Your task to perform on an android device: change notifications settings Image 0: 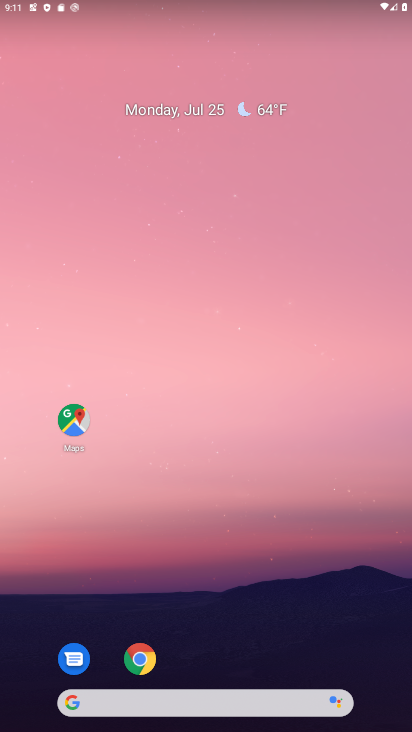
Step 0: drag from (367, 603) to (382, 171)
Your task to perform on an android device: change notifications settings Image 1: 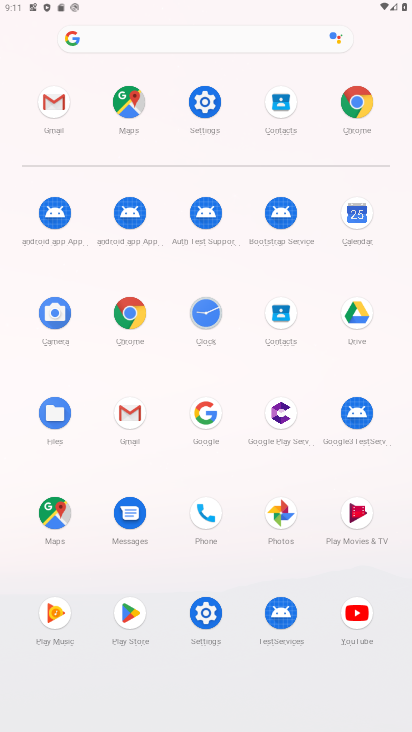
Step 1: click (206, 104)
Your task to perform on an android device: change notifications settings Image 2: 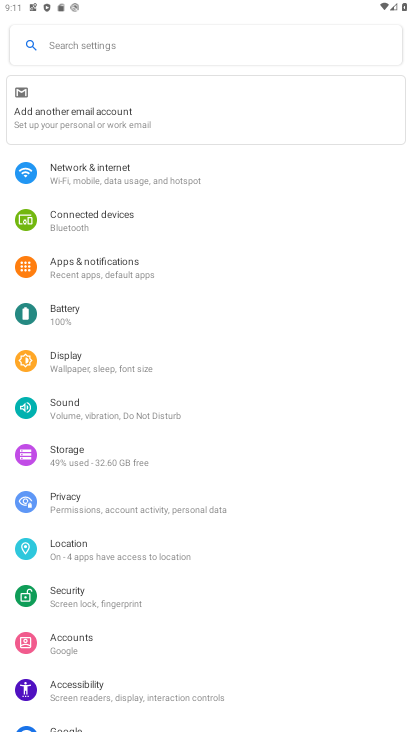
Step 2: drag from (299, 430) to (311, 331)
Your task to perform on an android device: change notifications settings Image 3: 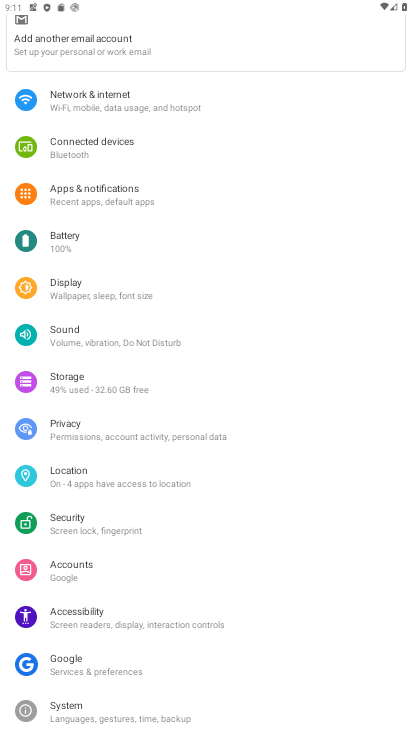
Step 3: drag from (301, 530) to (317, 446)
Your task to perform on an android device: change notifications settings Image 4: 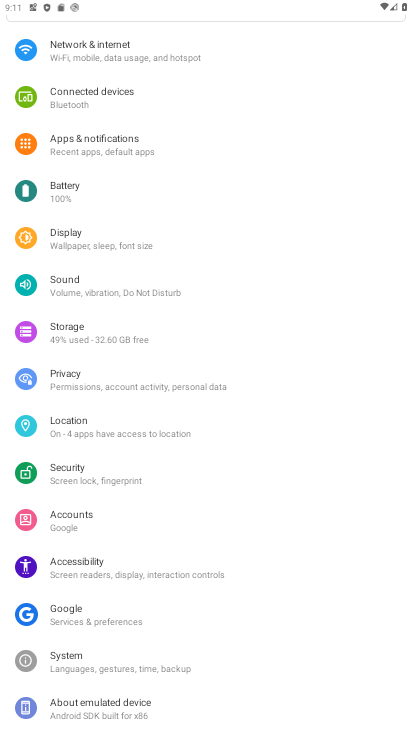
Step 4: drag from (329, 380) to (333, 483)
Your task to perform on an android device: change notifications settings Image 5: 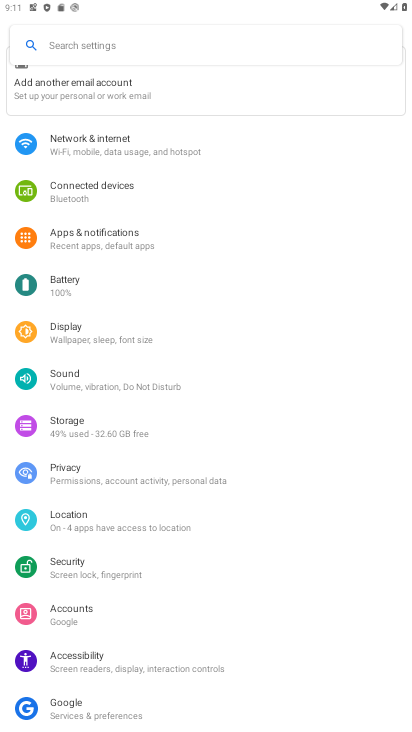
Step 5: drag from (319, 296) to (319, 405)
Your task to perform on an android device: change notifications settings Image 6: 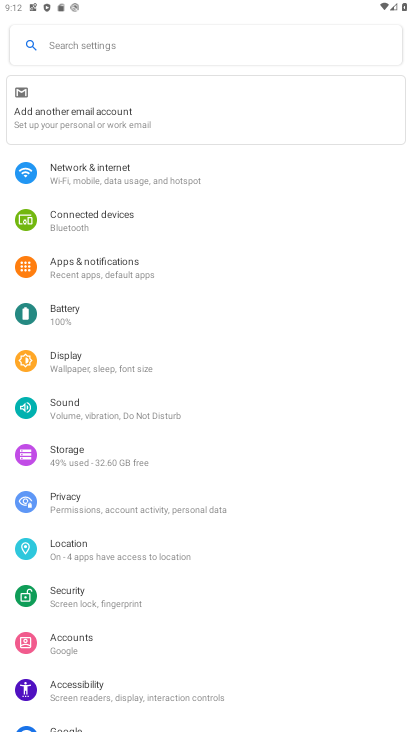
Step 6: drag from (310, 245) to (313, 349)
Your task to perform on an android device: change notifications settings Image 7: 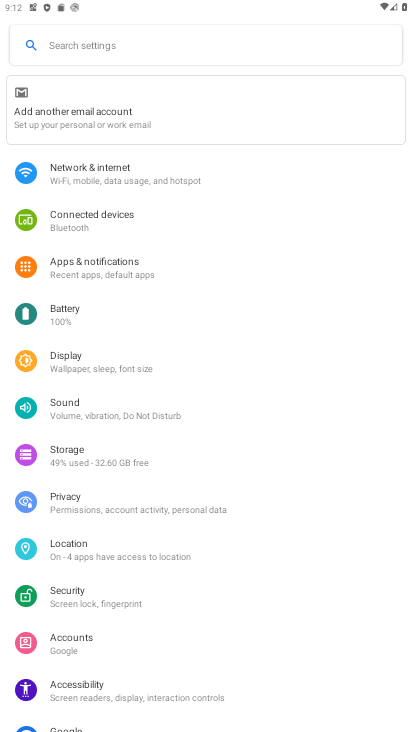
Step 7: click (159, 268)
Your task to perform on an android device: change notifications settings Image 8: 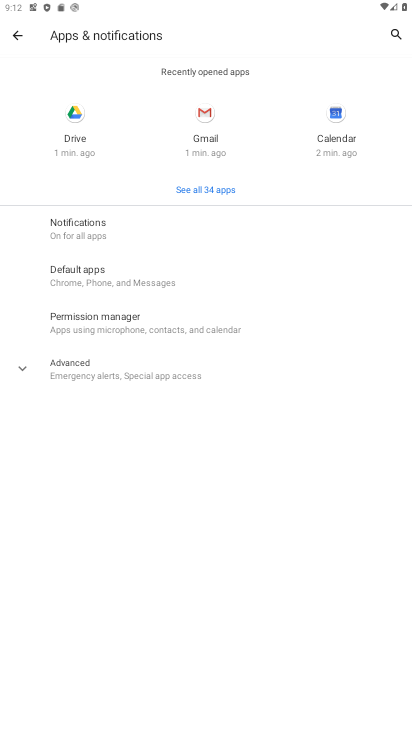
Step 8: click (115, 226)
Your task to perform on an android device: change notifications settings Image 9: 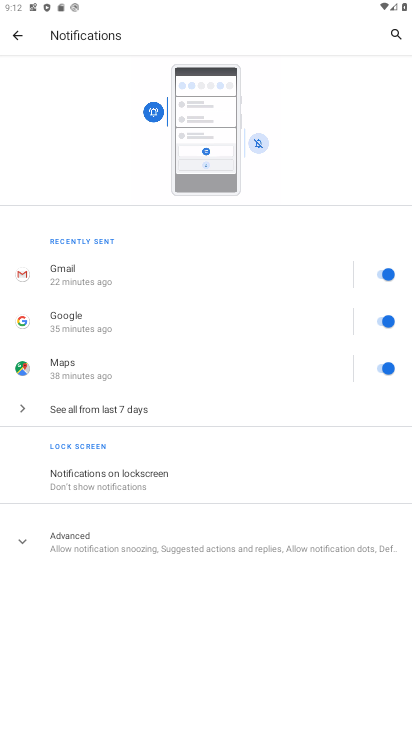
Step 9: click (383, 276)
Your task to perform on an android device: change notifications settings Image 10: 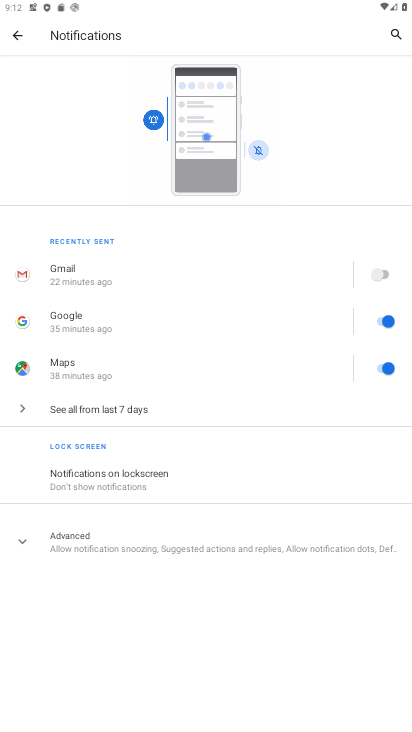
Step 10: click (389, 323)
Your task to perform on an android device: change notifications settings Image 11: 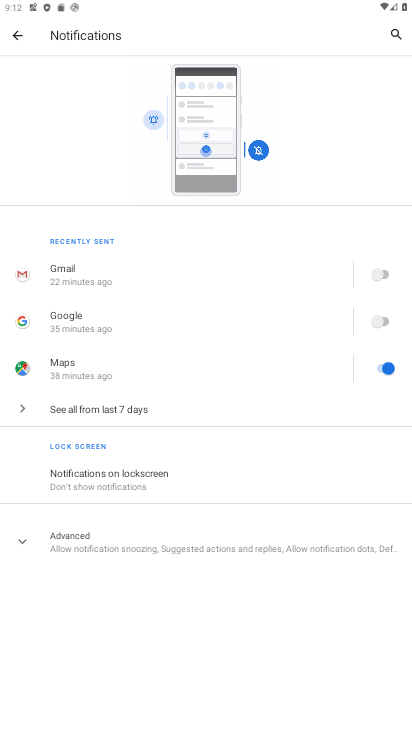
Step 11: click (388, 367)
Your task to perform on an android device: change notifications settings Image 12: 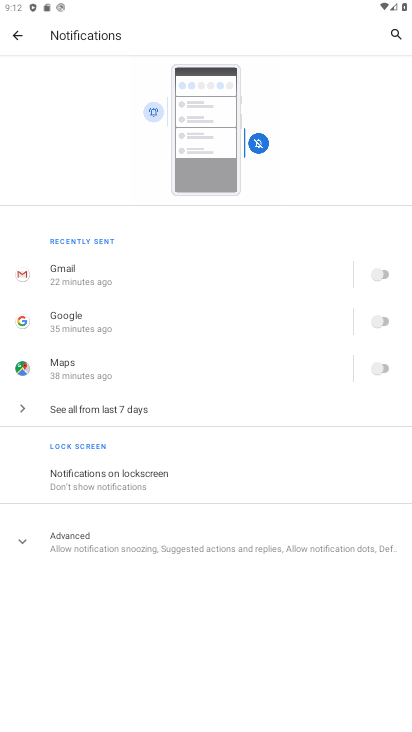
Step 12: task complete